Your task to perform on an android device: delete location history Image 0: 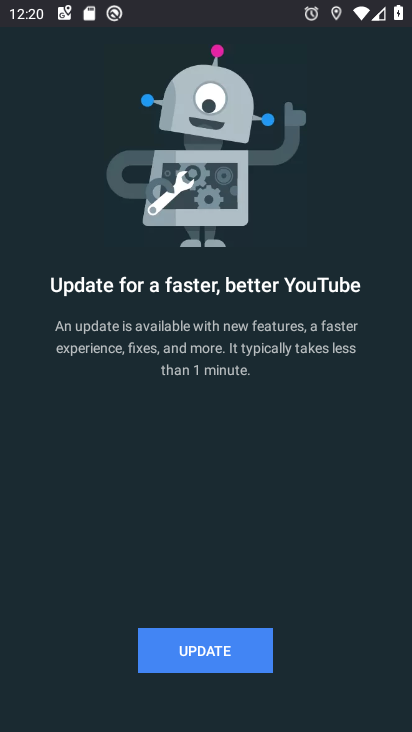
Step 0: press home button
Your task to perform on an android device: delete location history Image 1: 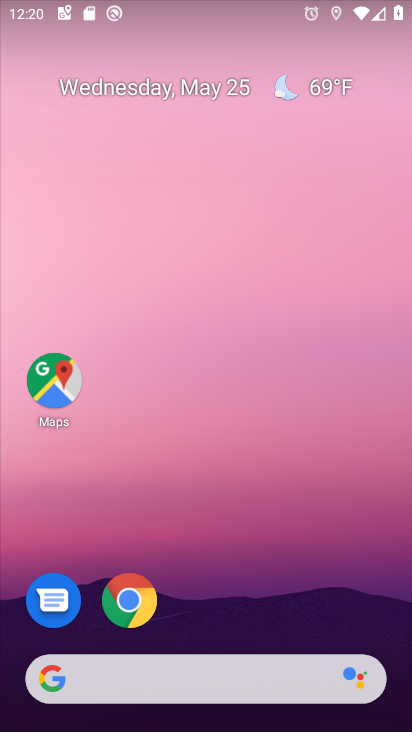
Step 1: drag from (379, 616) to (364, 200)
Your task to perform on an android device: delete location history Image 2: 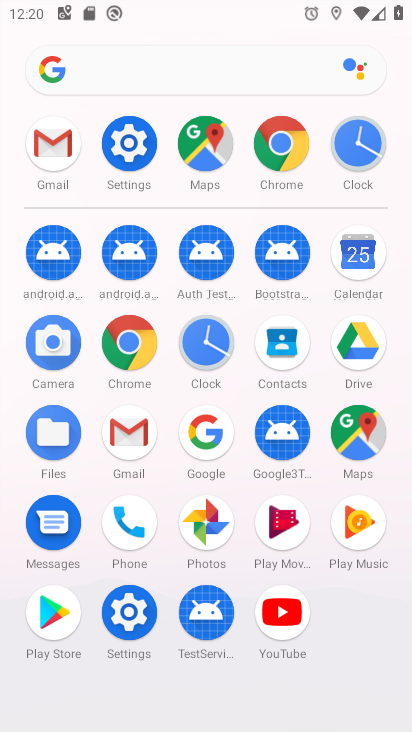
Step 2: click (363, 442)
Your task to perform on an android device: delete location history Image 3: 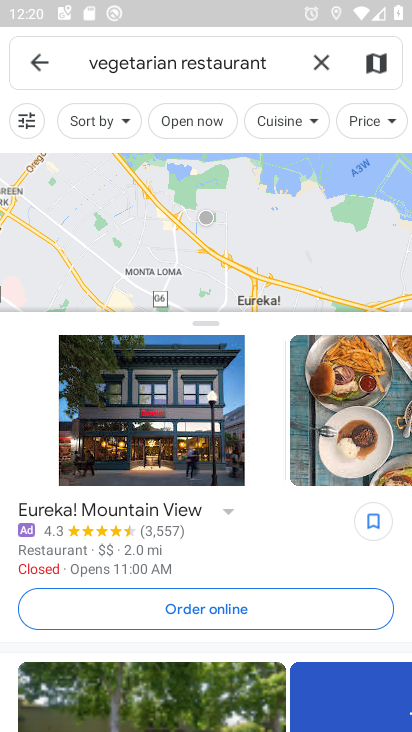
Step 3: click (39, 65)
Your task to perform on an android device: delete location history Image 4: 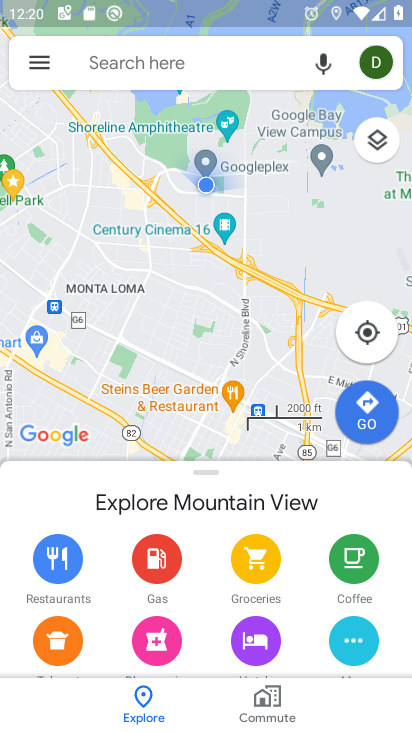
Step 4: click (39, 65)
Your task to perform on an android device: delete location history Image 5: 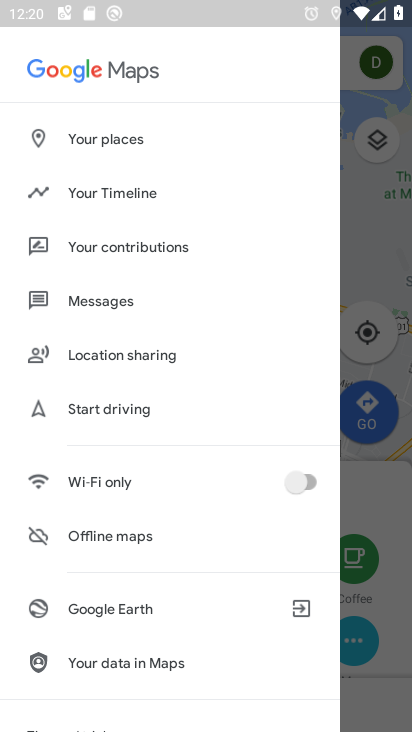
Step 5: click (106, 190)
Your task to perform on an android device: delete location history Image 6: 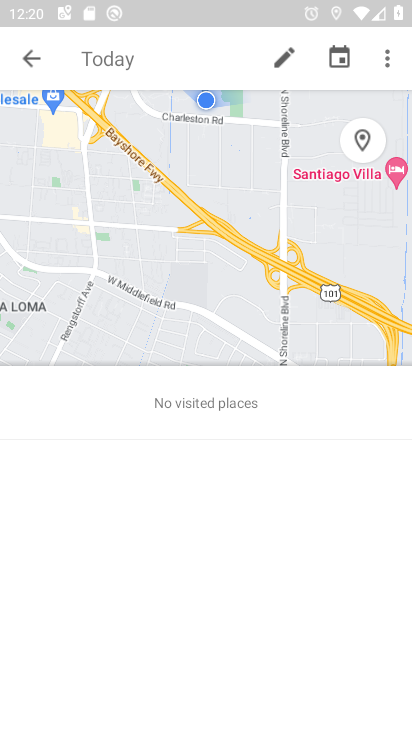
Step 6: click (392, 63)
Your task to perform on an android device: delete location history Image 7: 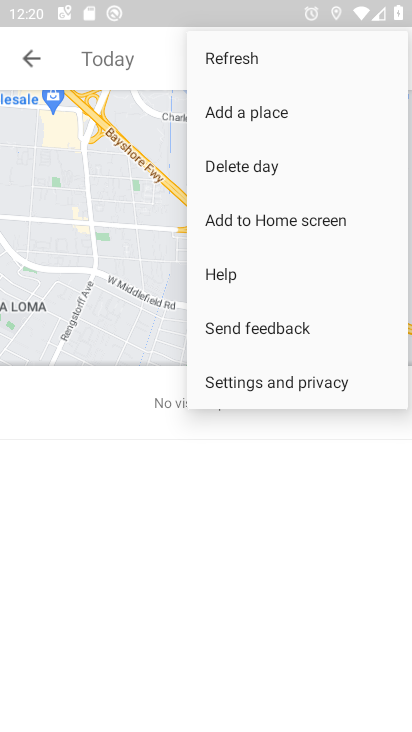
Step 7: click (325, 392)
Your task to perform on an android device: delete location history Image 8: 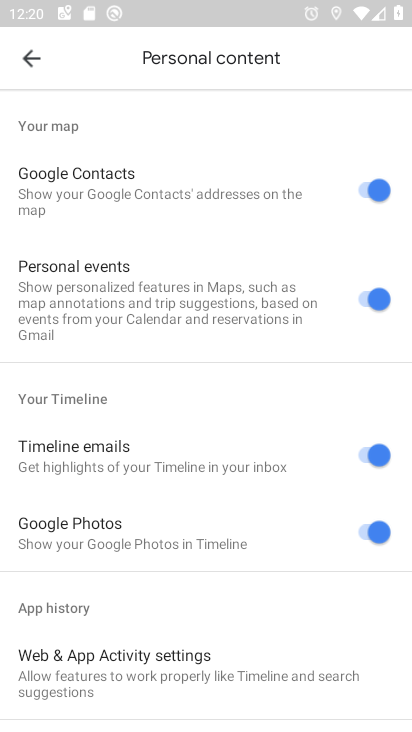
Step 8: drag from (278, 570) to (275, 449)
Your task to perform on an android device: delete location history Image 9: 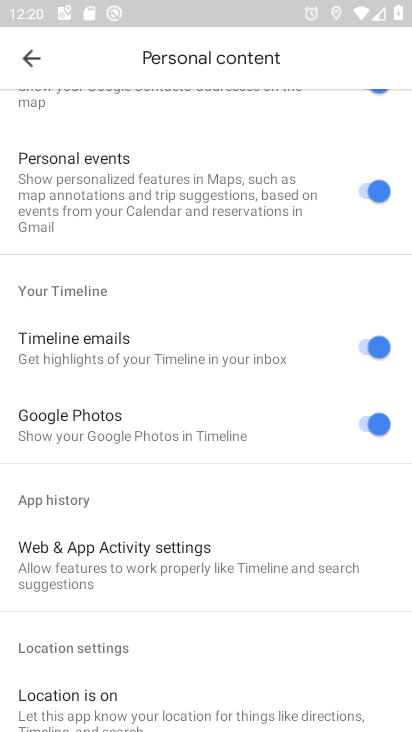
Step 9: drag from (247, 620) to (248, 500)
Your task to perform on an android device: delete location history Image 10: 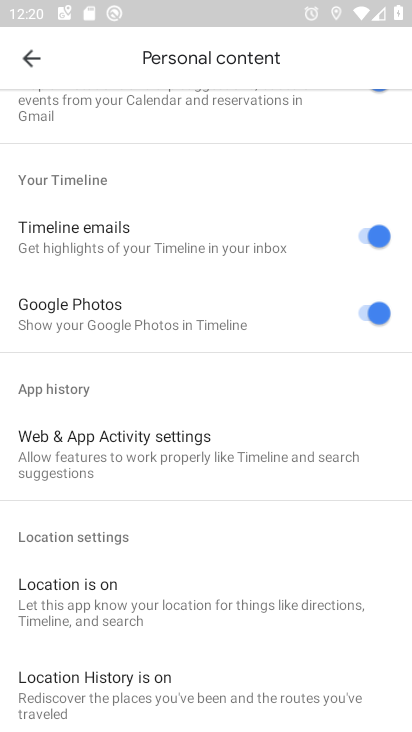
Step 10: drag from (235, 631) to (258, 482)
Your task to perform on an android device: delete location history Image 11: 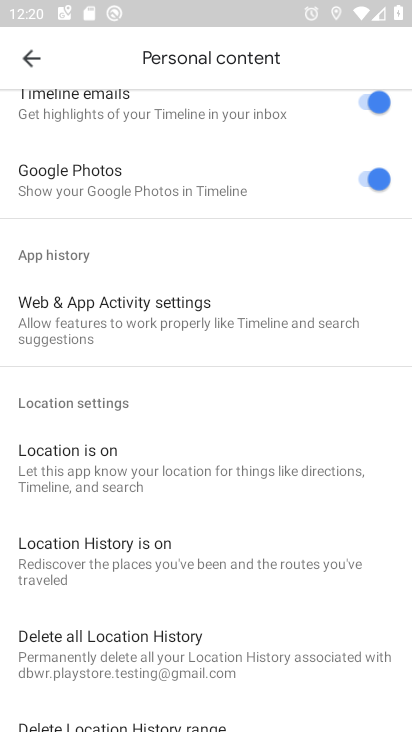
Step 11: drag from (265, 630) to (272, 393)
Your task to perform on an android device: delete location history Image 12: 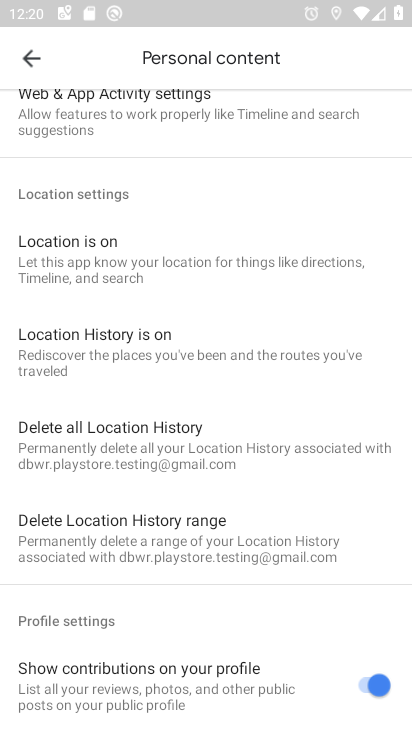
Step 12: click (225, 455)
Your task to perform on an android device: delete location history Image 13: 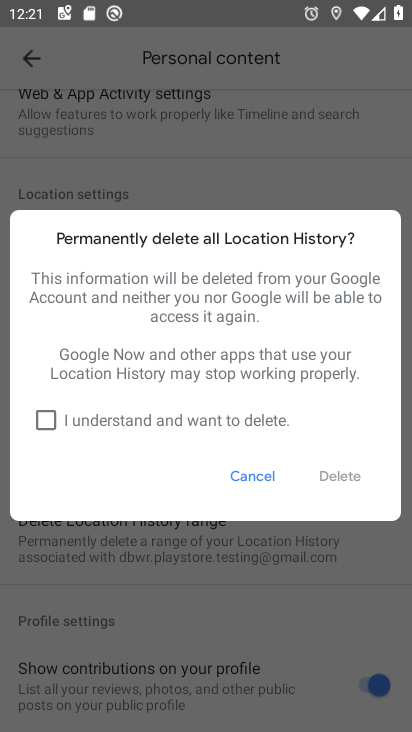
Step 13: click (43, 416)
Your task to perform on an android device: delete location history Image 14: 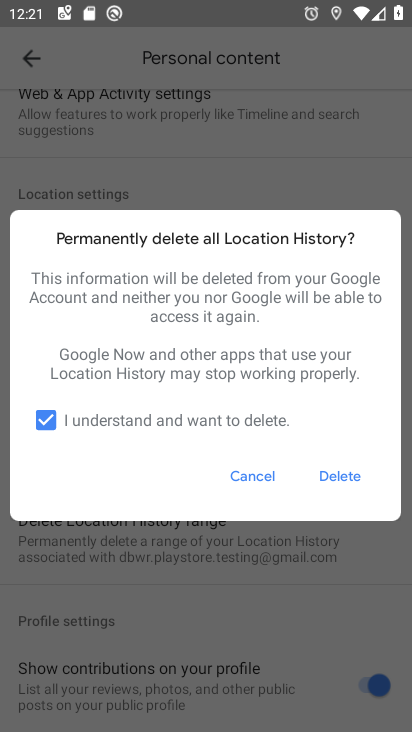
Step 14: click (341, 476)
Your task to perform on an android device: delete location history Image 15: 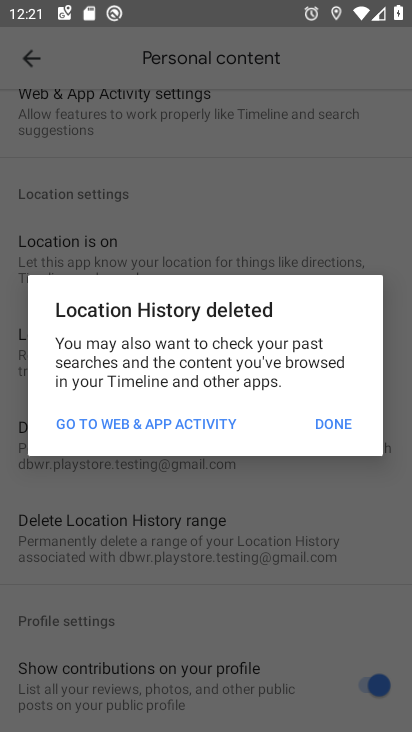
Step 15: task complete